Your task to perform on an android device: What's the weather today? Image 0: 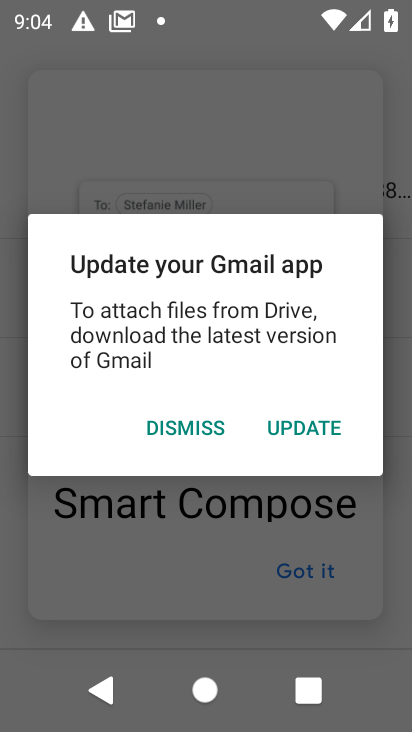
Step 0: press home button
Your task to perform on an android device: What's the weather today? Image 1: 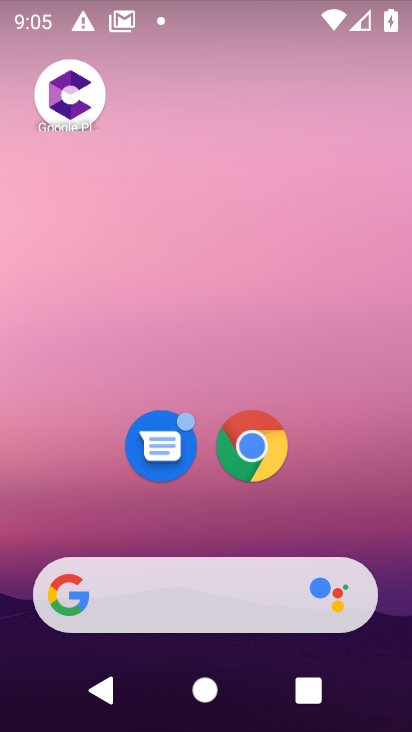
Step 1: click (210, 80)
Your task to perform on an android device: What's the weather today? Image 2: 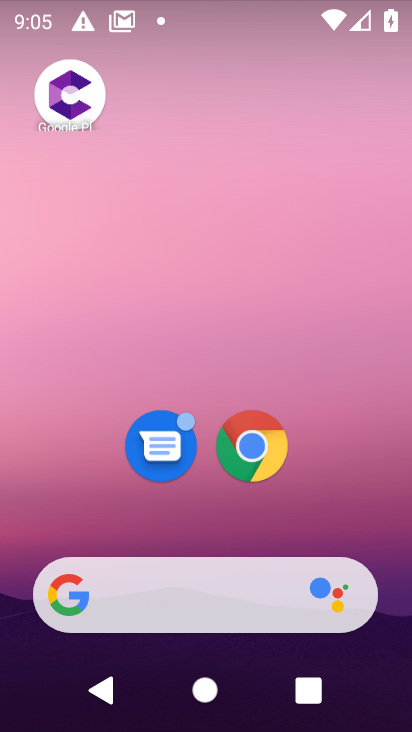
Step 2: drag from (209, 521) to (211, 123)
Your task to perform on an android device: What's the weather today? Image 3: 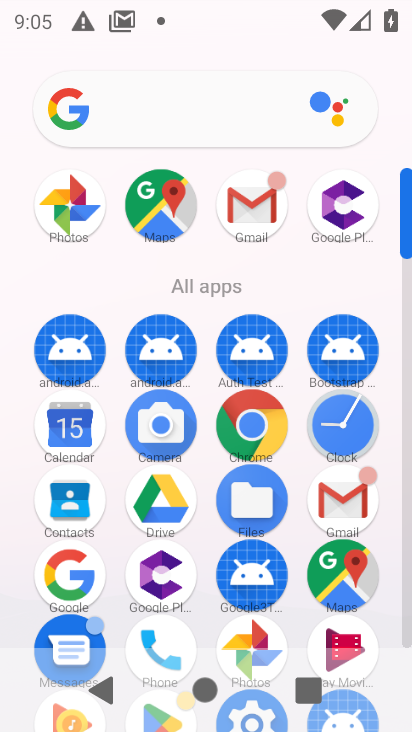
Step 3: click (80, 565)
Your task to perform on an android device: What's the weather today? Image 4: 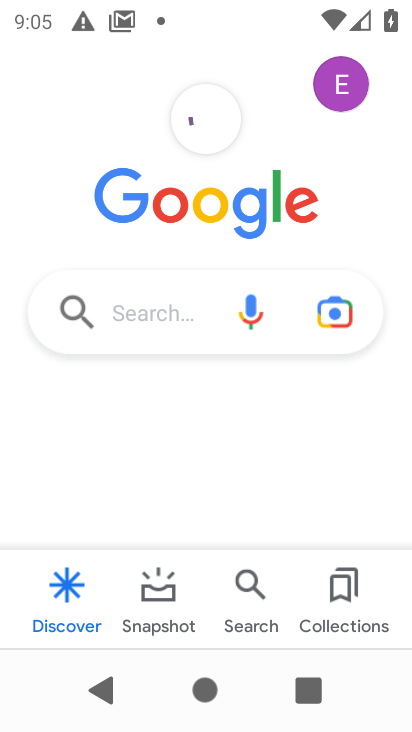
Step 4: click (154, 320)
Your task to perform on an android device: What's the weather today? Image 5: 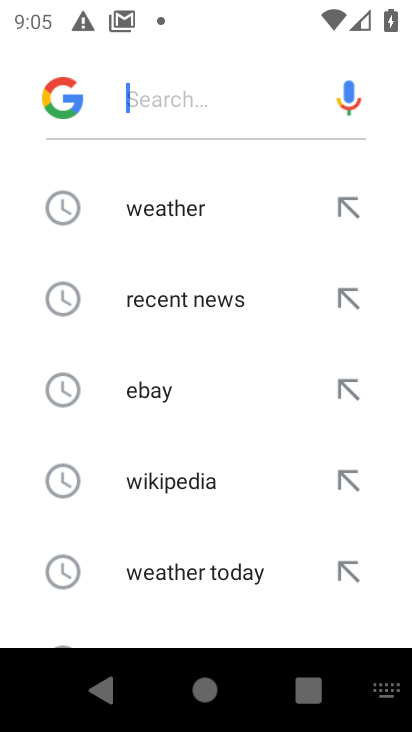
Step 5: click (180, 118)
Your task to perform on an android device: What's the weather today? Image 6: 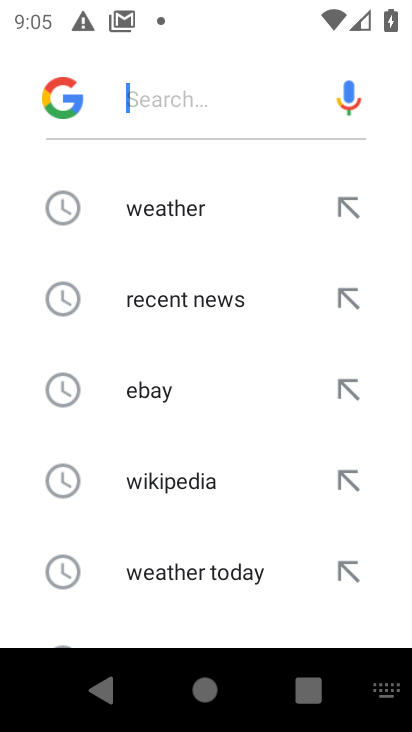
Step 6: click (169, 203)
Your task to perform on an android device: What's the weather today? Image 7: 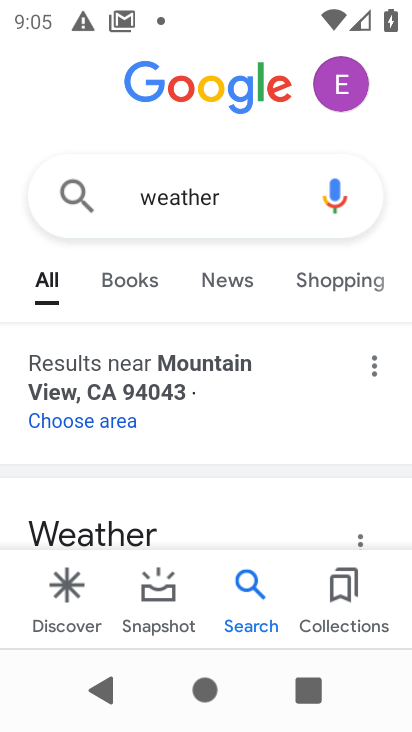
Step 7: task complete